Your task to perform on an android device: Do I have any events tomorrow? Image 0: 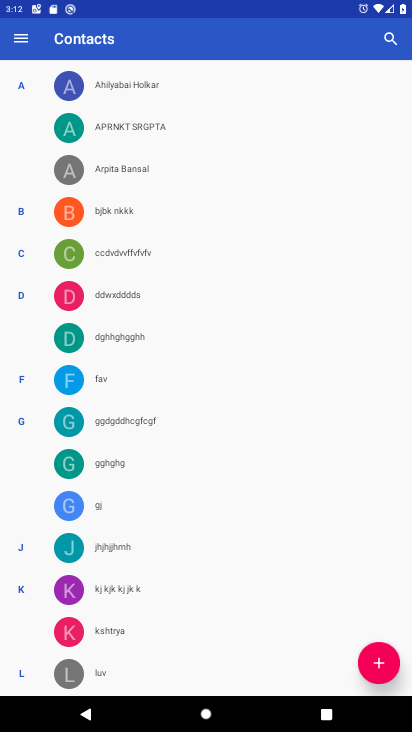
Step 0: press home button
Your task to perform on an android device: Do I have any events tomorrow? Image 1: 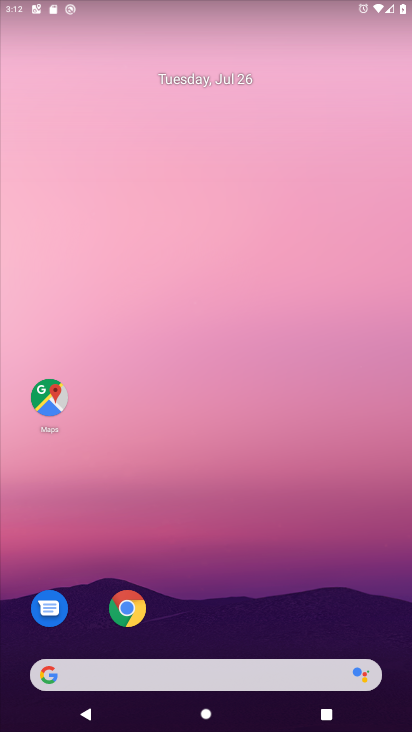
Step 1: drag from (259, 584) to (228, 400)
Your task to perform on an android device: Do I have any events tomorrow? Image 2: 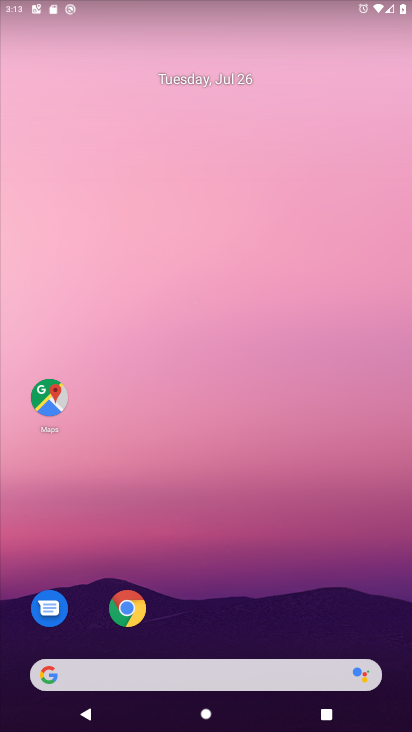
Step 2: drag from (252, 630) to (149, 148)
Your task to perform on an android device: Do I have any events tomorrow? Image 3: 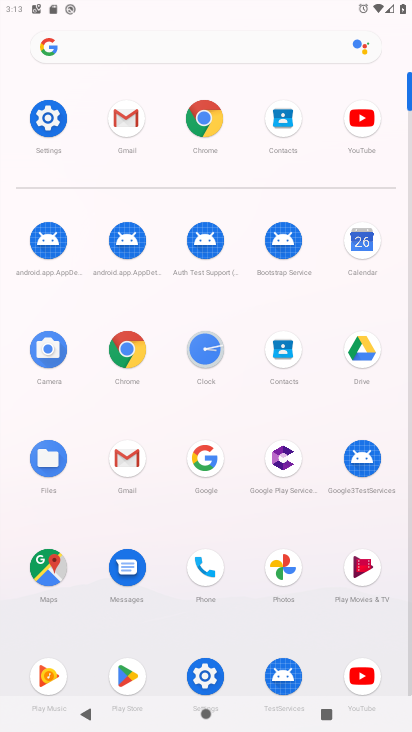
Step 3: click (363, 235)
Your task to perform on an android device: Do I have any events tomorrow? Image 4: 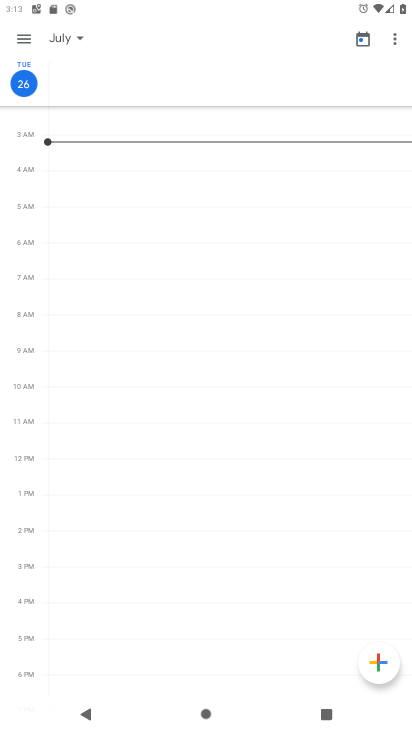
Step 4: click (28, 34)
Your task to perform on an android device: Do I have any events tomorrow? Image 5: 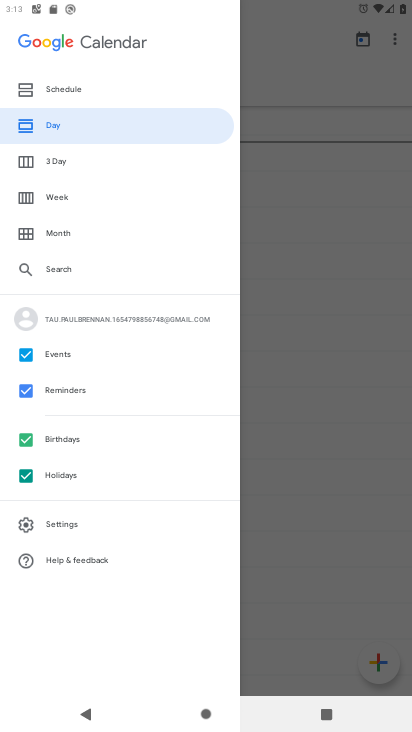
Step 5: click (67, 95)
Your task to perform on an android device: Do I have any events tomorrow? Image 6: 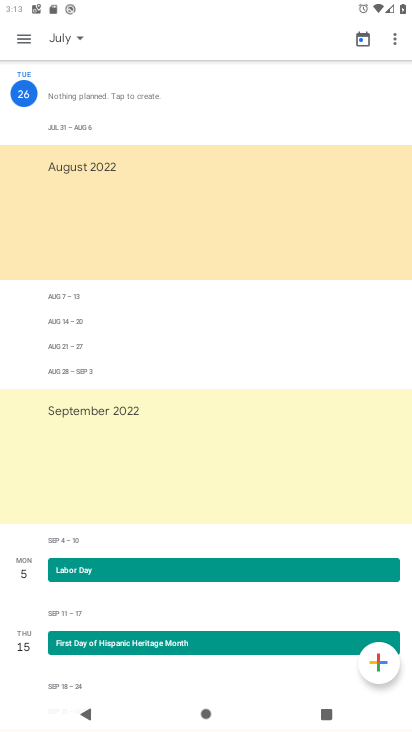
Step 6: click (69, 36)
Your task to perform on an android device: Do I have any events tomorrow? Image 7: 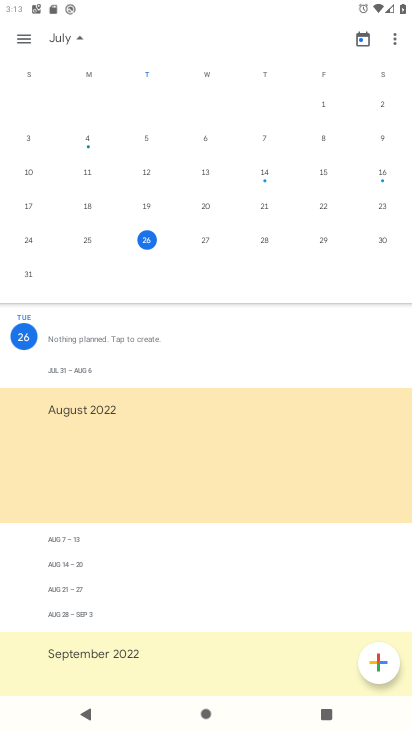
Step 7: click (205, 243)
Your task to perform on an android device: Do I have any events tomorrow? Image 8: 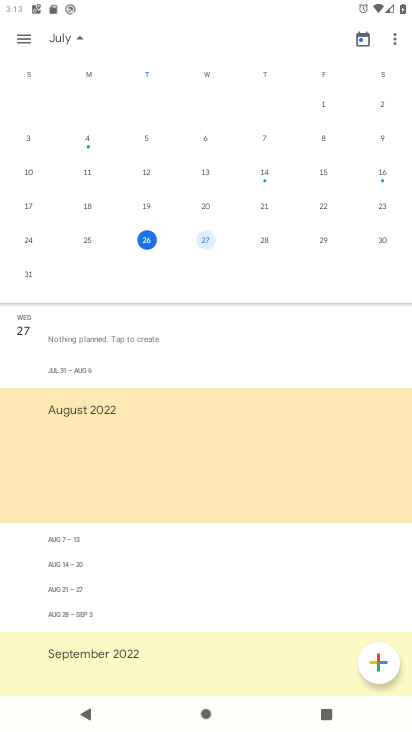
Step 8: task complete